Your task to perform on an android device: Open Google Maps Image 0: 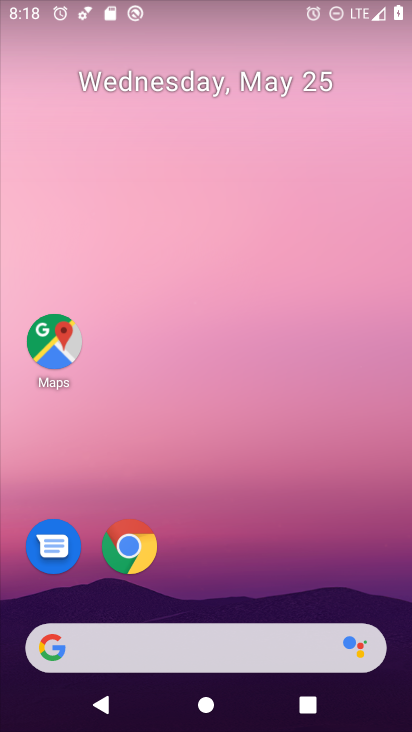
Step 0: drag from (388, 595) to (411, 302)
Your task to perform on an android device: Open Google Maps Image 1: 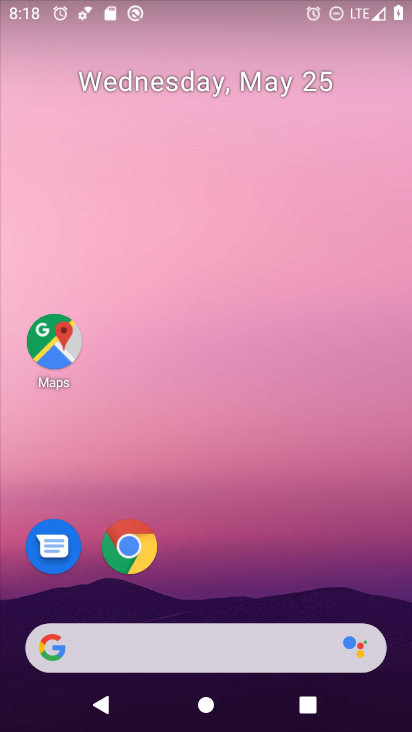
Step 1: click (370, 326)
Your task to perform on an android device: Open Google Maps Image 2: 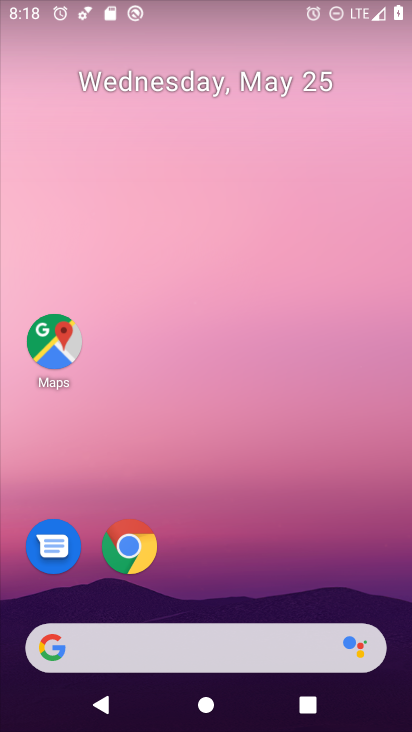
Step 2: drag from (390, 532) to (371, 112)
Your task to perform on an android device: Open Google Maps Image 3: 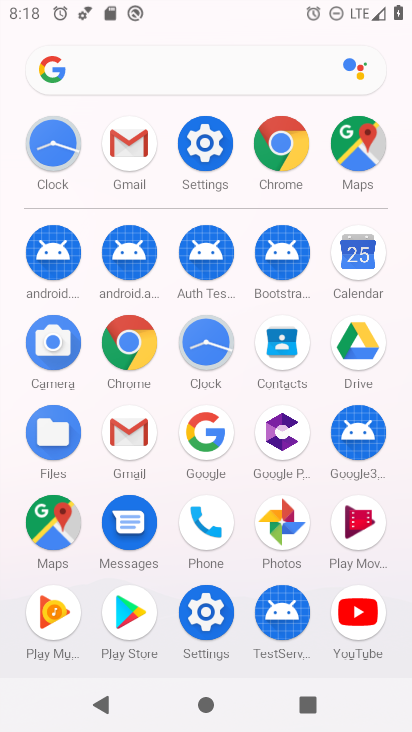
Step 3: click (367, 159)
Your task to perform on an android device: Open Google Maps Image 4: 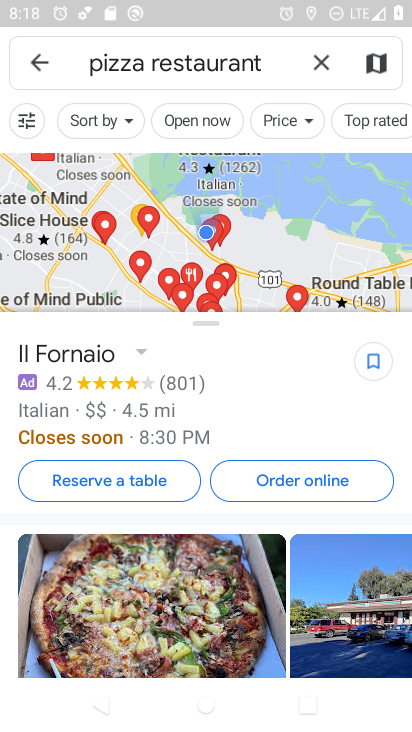
Step 4: task complete